Your task to perform on an android device: change your default location settings in chrome Image 0: 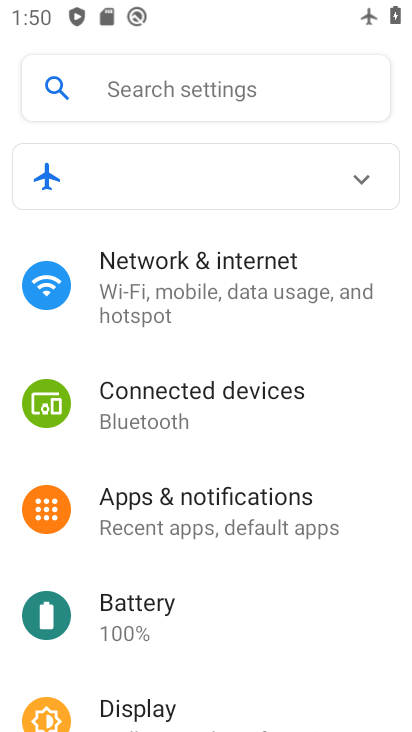
Step 0: press home button
Your task to perform on an android device: change your default location settings in chrome Image 1: 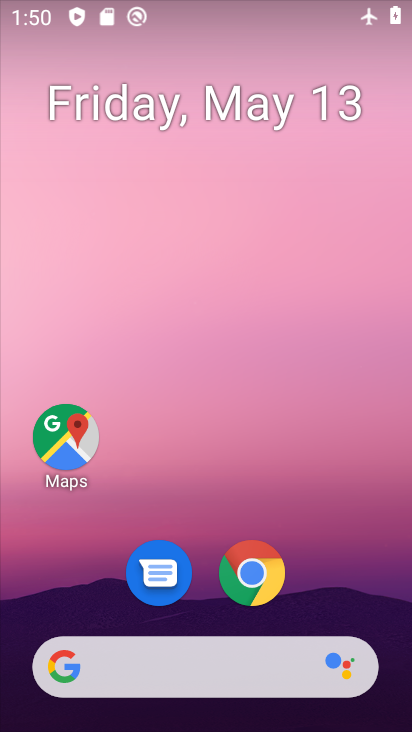
Step 1: click (264, 551)
Your task to perform on an android device: change your default location settings in chrome Image 2: 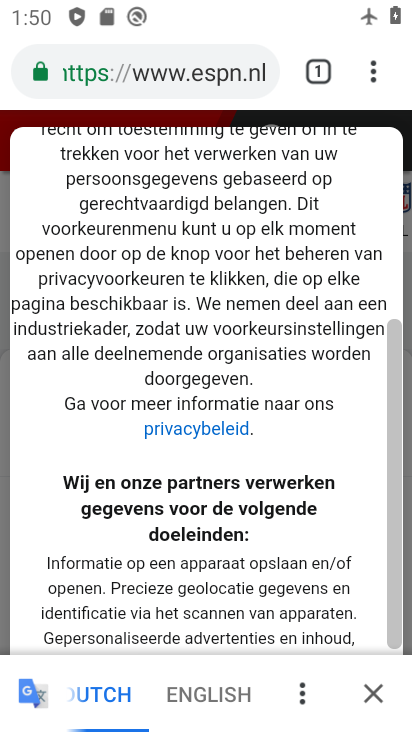
Step 2: click (379, 63)
Your task to perform on an android device: change your default location settings in chrome Image 3: 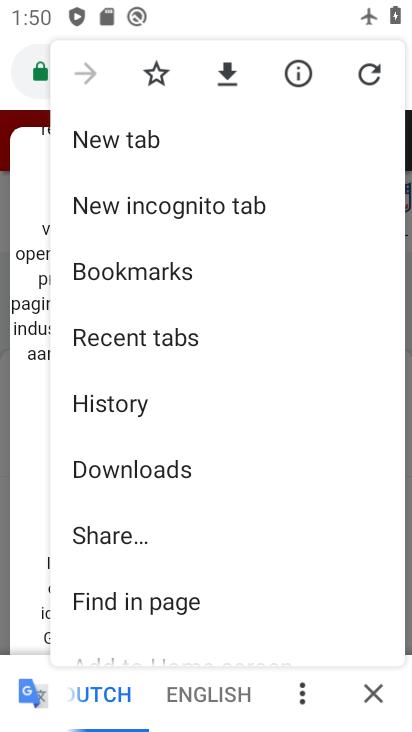
Step 3: drag from (297, 519) to (243, 97)
Your task to perform on an android device: change your default location settings in chrome Image 4: 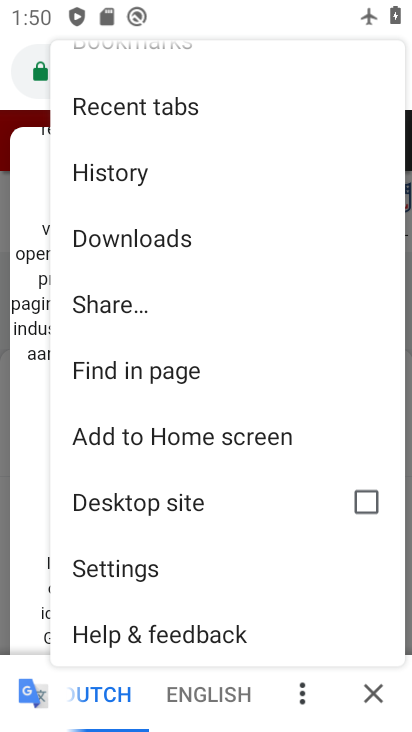
Step 4: click (209, 565)
Your task to perform on an android device: change your default location settings in chrome Image 5: 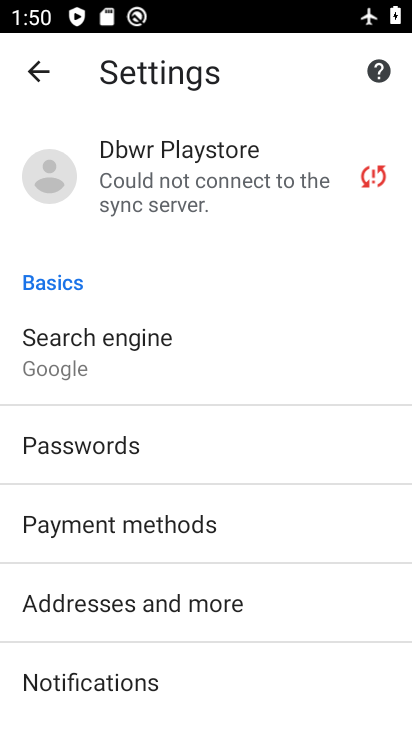
Step 5: drag from (198, 613) to (86, 328)
Your task to perform on an android device: change your default location settings in chrome Image 6: 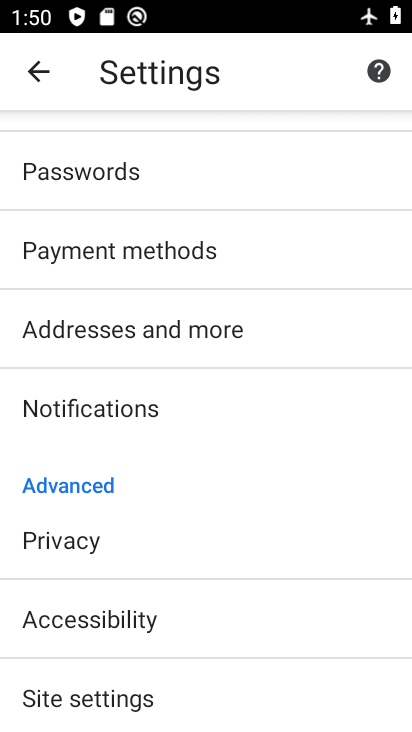
Step 6: drag from (124, 637) to (105, 498)
Your task to perform on an android device: change your default location settings in chrome Image 7: 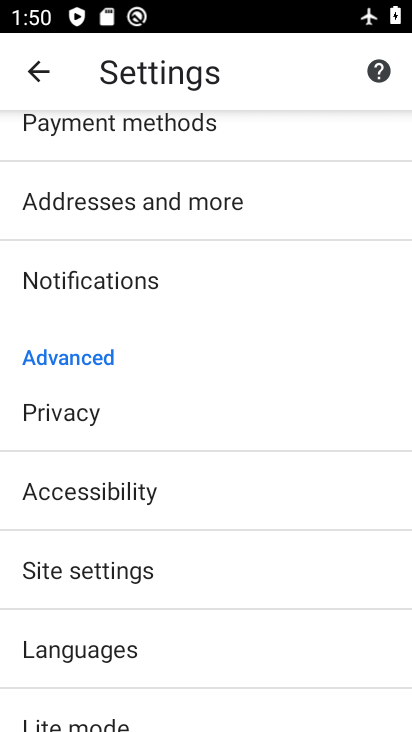
Step 7: click (126, 557)
Your task to perform on an android device: change your default location settings in chrome Image 8: 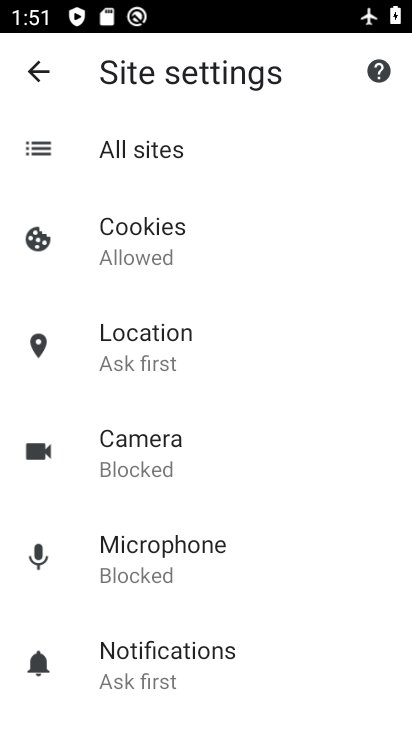
Step 8: click (163, 355)
Your task to perform on an android device: change your default location settings in chrome Image 9: 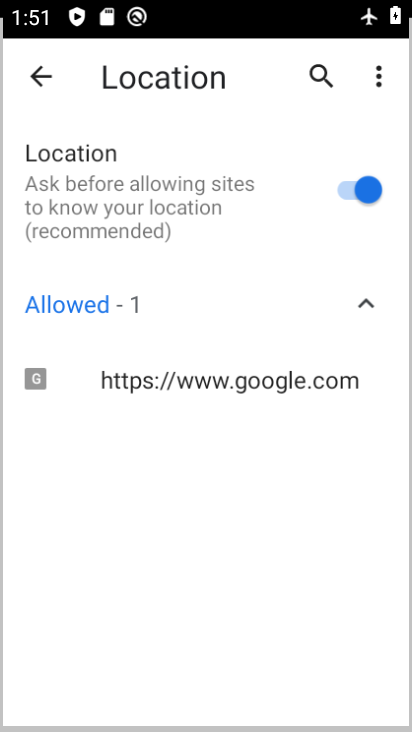
Step 9: click (163, 355)
Your task to perform on an android device: change your default location settings in chrome Image 10: 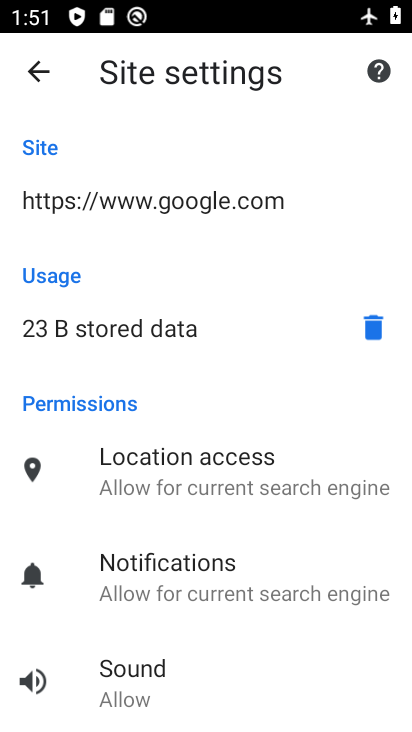
Step 10: click (32, 63)
Your task to perform on an android device: change your default location settings in chrome Image 11: 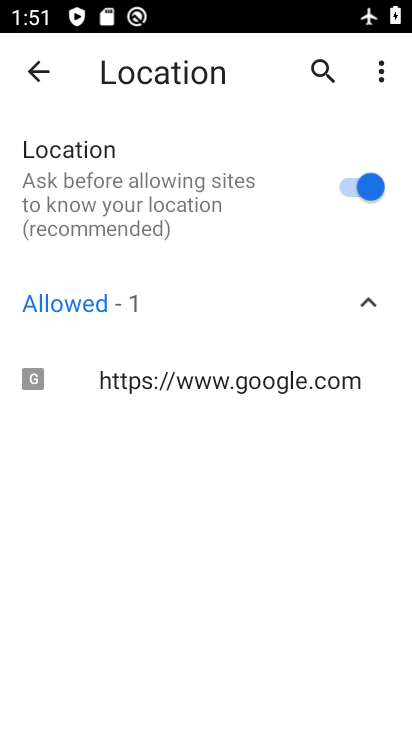
Step 11: click (370, 184)
Your task to perform on an android device: change your default location settings in chrome Image 12: 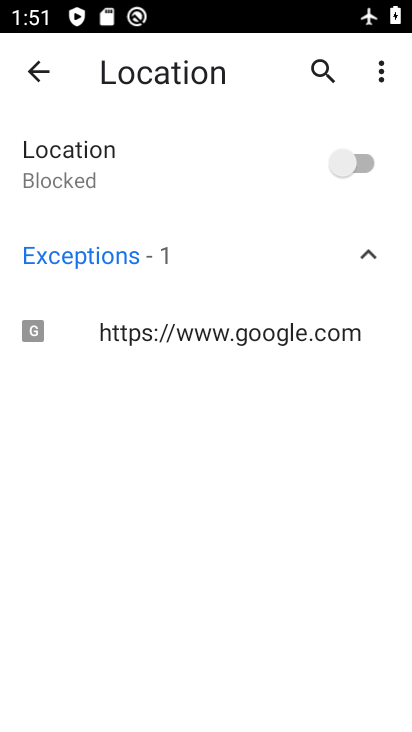
Step 12: task complete